Your task to perform on an android device: find which apps use the phone's location Image 0: 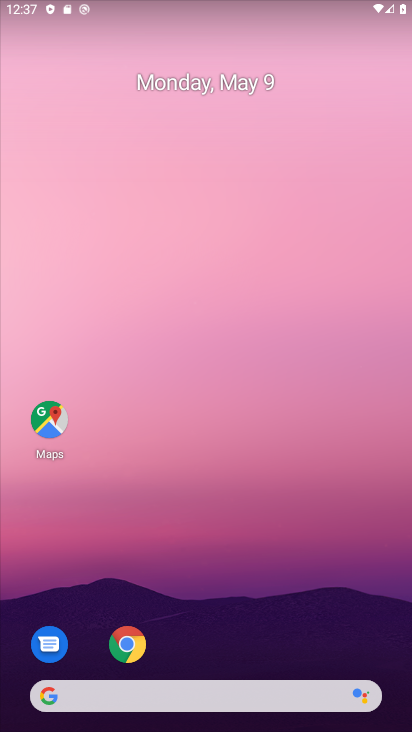
Step 0: drag from (284, 571) to (294, 237)
Your task to perform on an android device: find which apps use the phone's location Image 1: 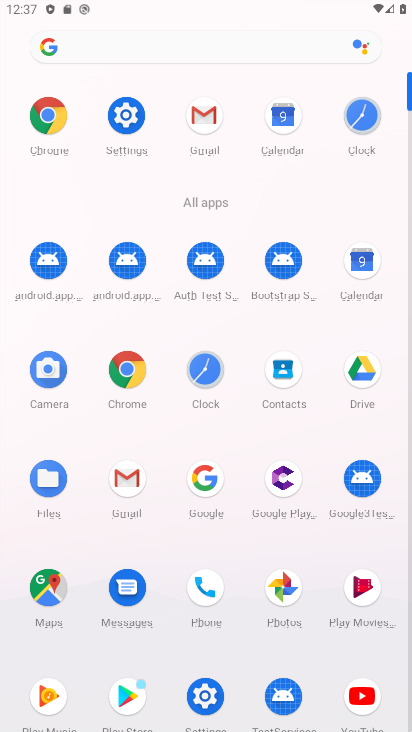
Step 1: click (127, 150)
Your task to perform on an android device: find which apps use the phone's location Image 2: 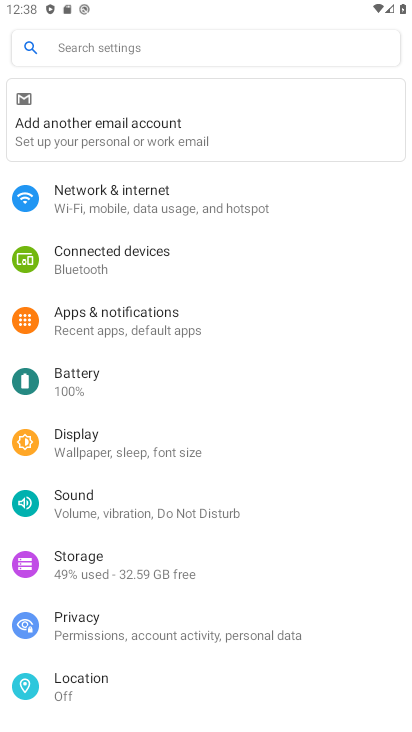
Step 2: click (112, 686)
Your task to perform on an android device: find which apps use the phone's location Image 3: 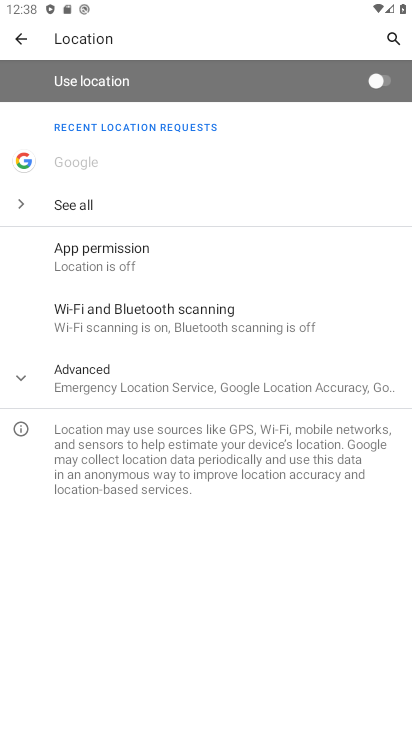
Step 3: click (114, 277)
Your task to perform on an android device: find which apps use the phone's location Image 4: 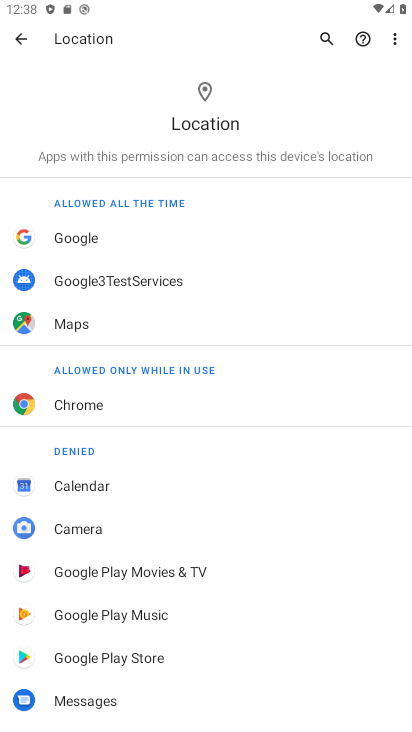
Step 4: task complete